Your task to perform on an android device: Go to Reddit.com Image 0: 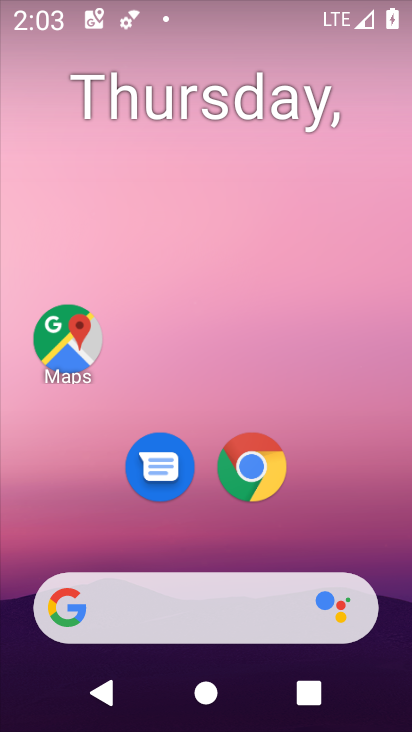
Step 0: click (242, 472)
Your task to perform on an android device: Go to Reddit.com Image 1: 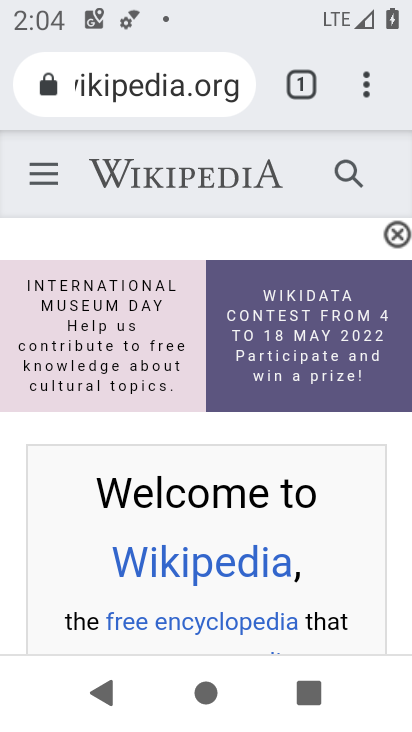
Step 1: click (300, 89)
Your task to perform on an android device: Go to Reddit.com Image 2: 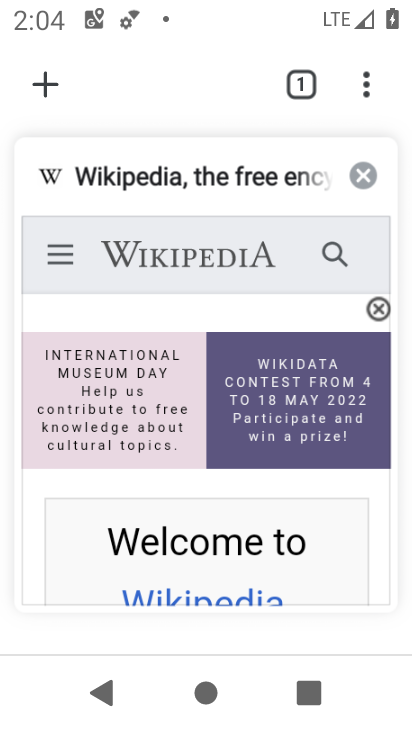
Step 2: click (47, 92)
Your task to perform on an android device: Go to Reddit.com Image 3: 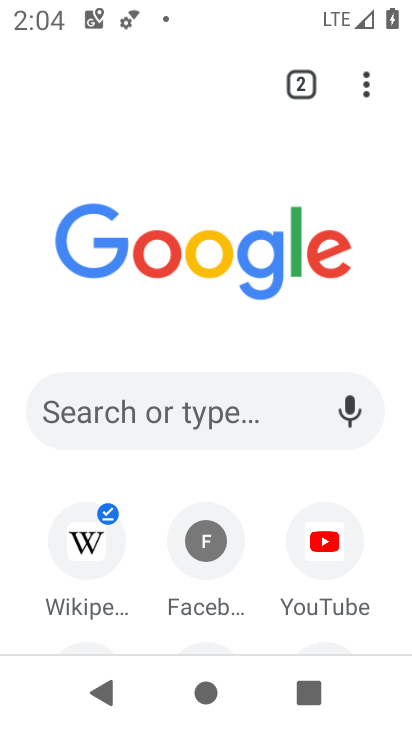
Step 3: click (132, 425)
Your task to perform on an android device: Go to Reddit.com Image 4: 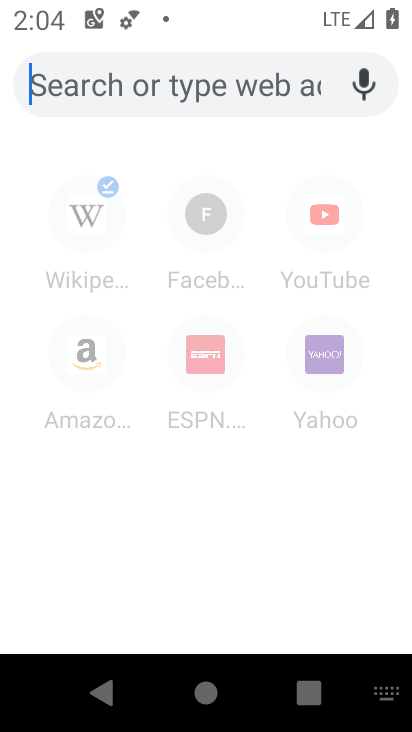
Step 4: type "reddit"
Your task to perform on an android device: Go to Reddit.com Image 5: 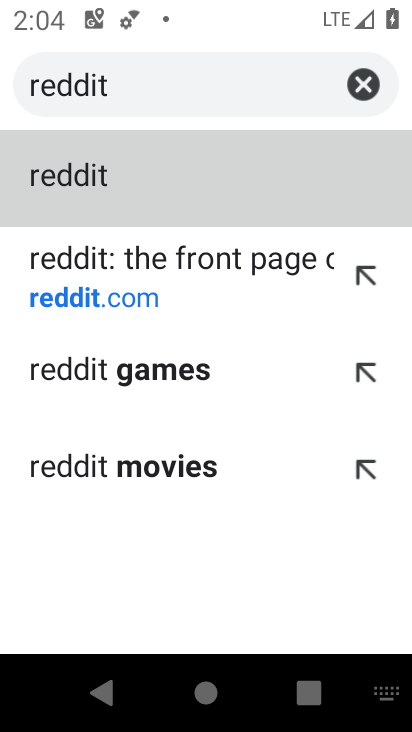
Step 5: click (204, 298)
Your task to perform on an android device: Go to Reddit.com Image 6: 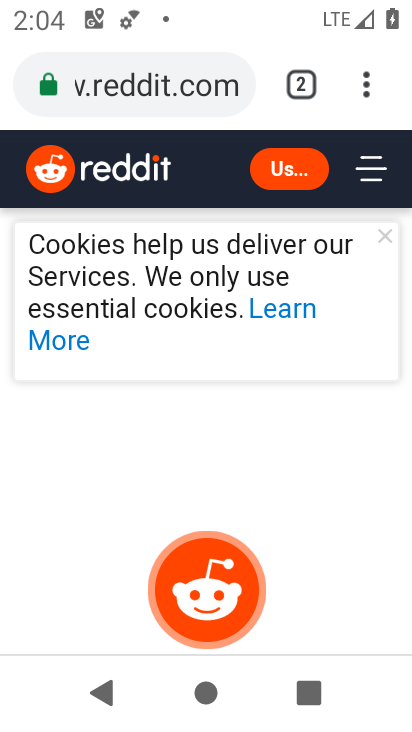
Step 6: task complete